Your task to perform on an android device: check android version Image 0: 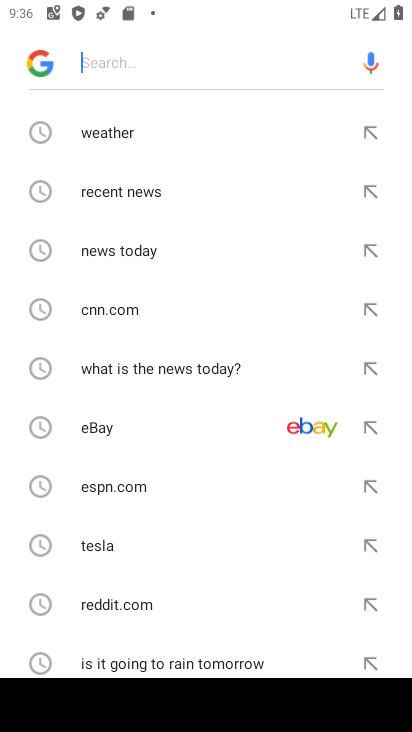
Step 0: press home button
Your task to perform on an android device: check android version Image 1: 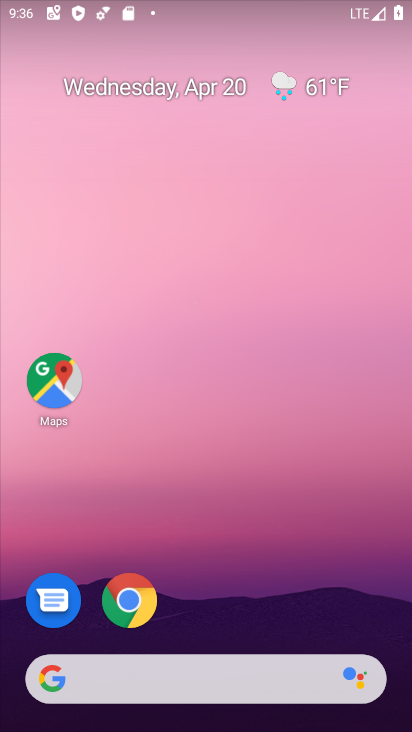
Step 1: drag from (269, 626) to (288, 86)
Your task to perform on an android device: check android version Image 2: 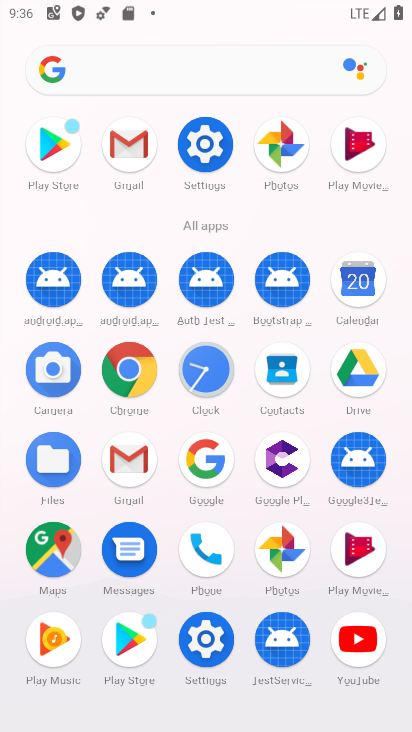
Step 2: click (198, 146)
Your task to perform on an android device: check android version Image 3: 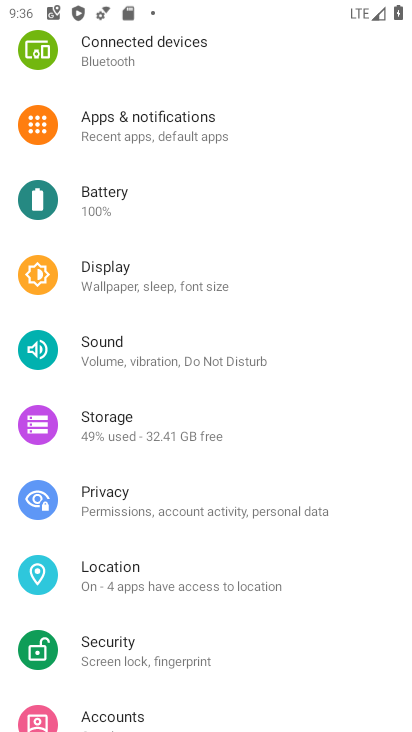
Step 3: drag from (142, 670) to (179, 189)
Your task to perform on an android device: check android version Image 4: 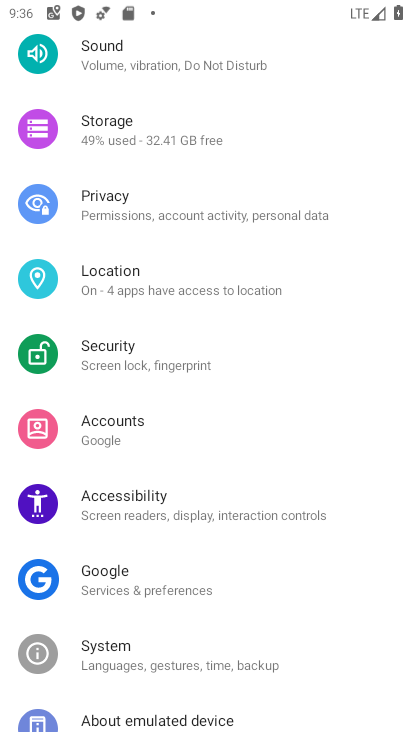
Step 4: drag from (93, 675) to (171, 165)
Your task to perform on an android device: check android version Image 5: 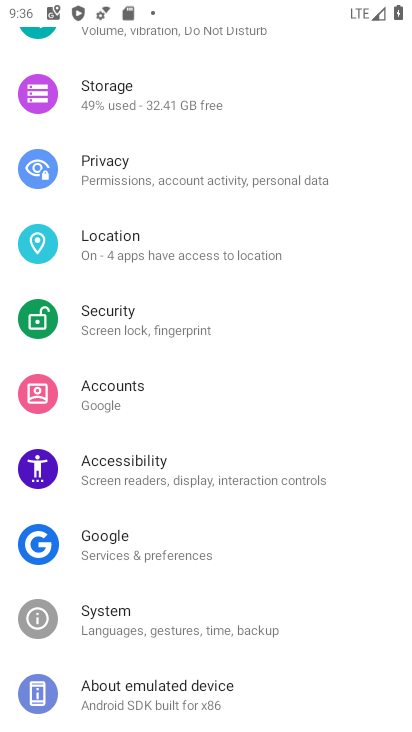
Step 5: click (149, 676)
Your task to perform on an android device: check android version Image 6: 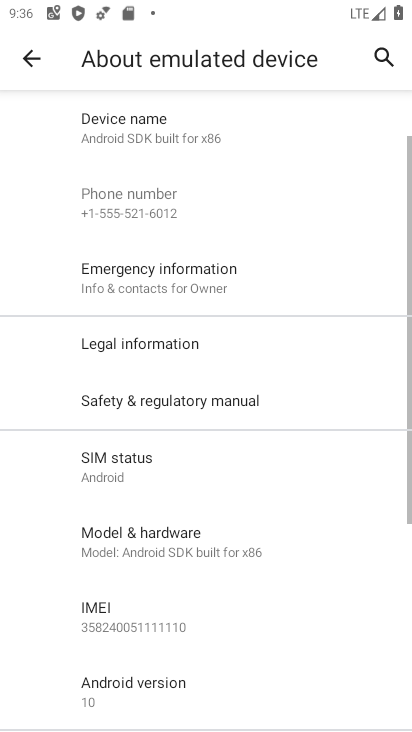
Step 6: click (149, 676)
Your task to perform on an android device: check android version Image 7: 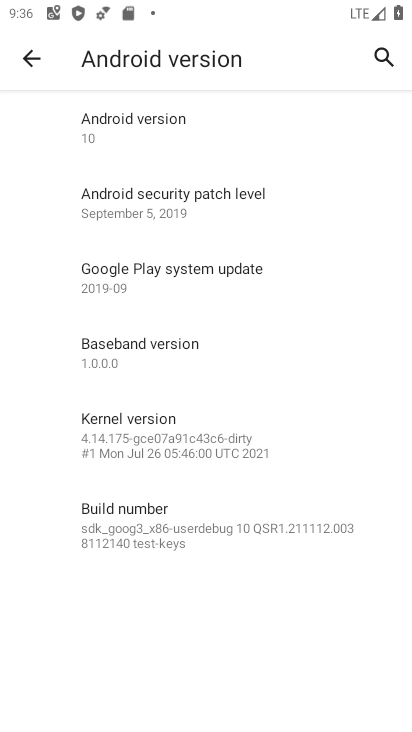
Step 7: click (148, 120)
Your task to perform on an android device: check android version Image 8: 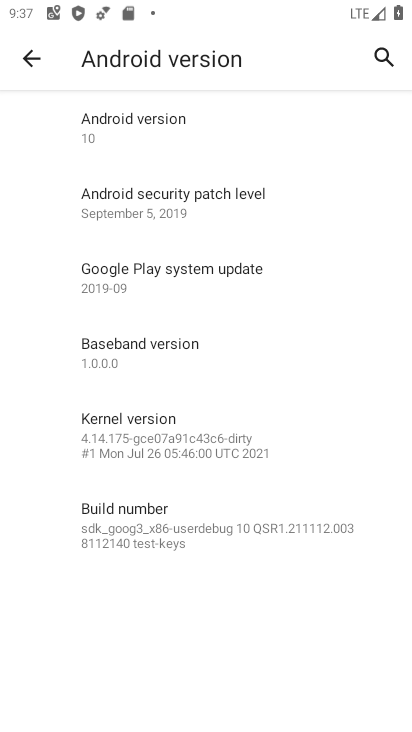
Step 8: task complete